Your task to perform on an android device: Open Amazon Image 0: 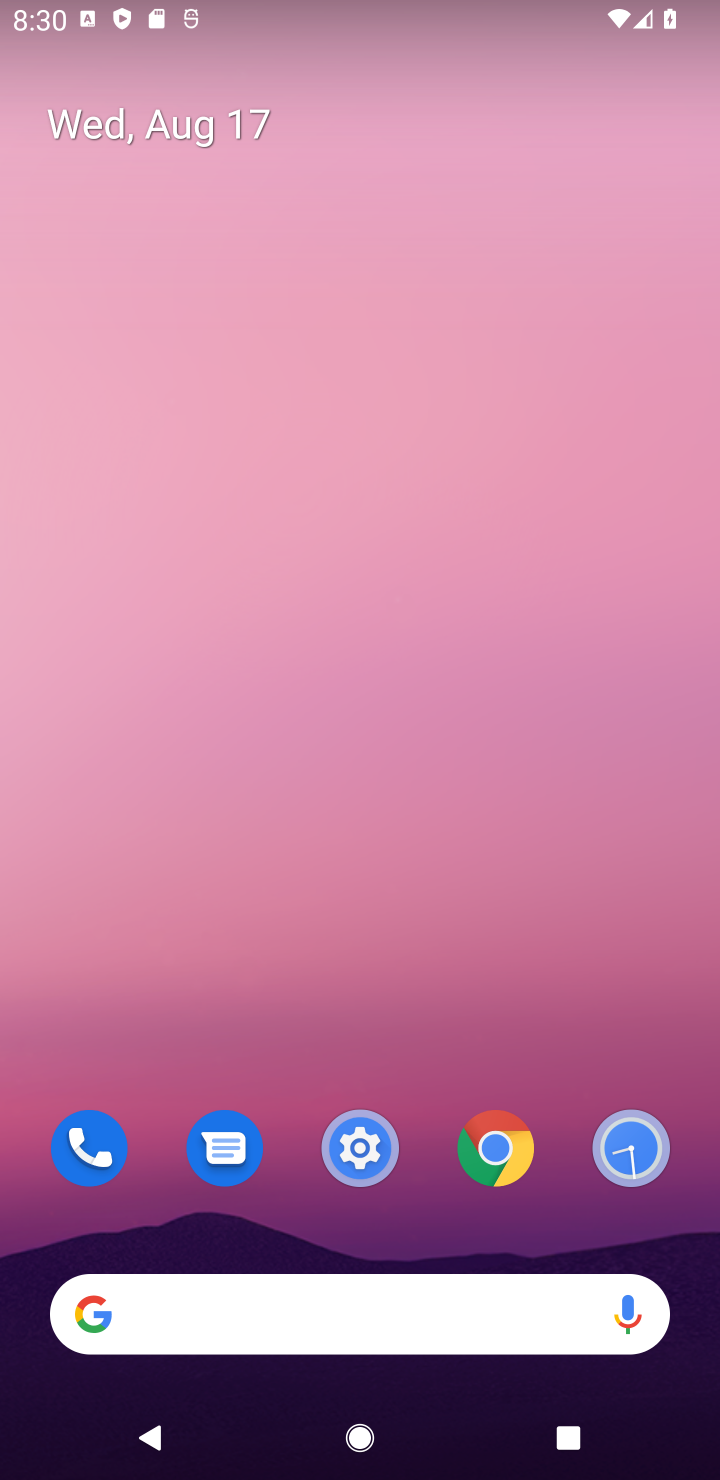
Step 0: click (495, 1149)
Your task to perform on an android device: Open Amazon Image 1: 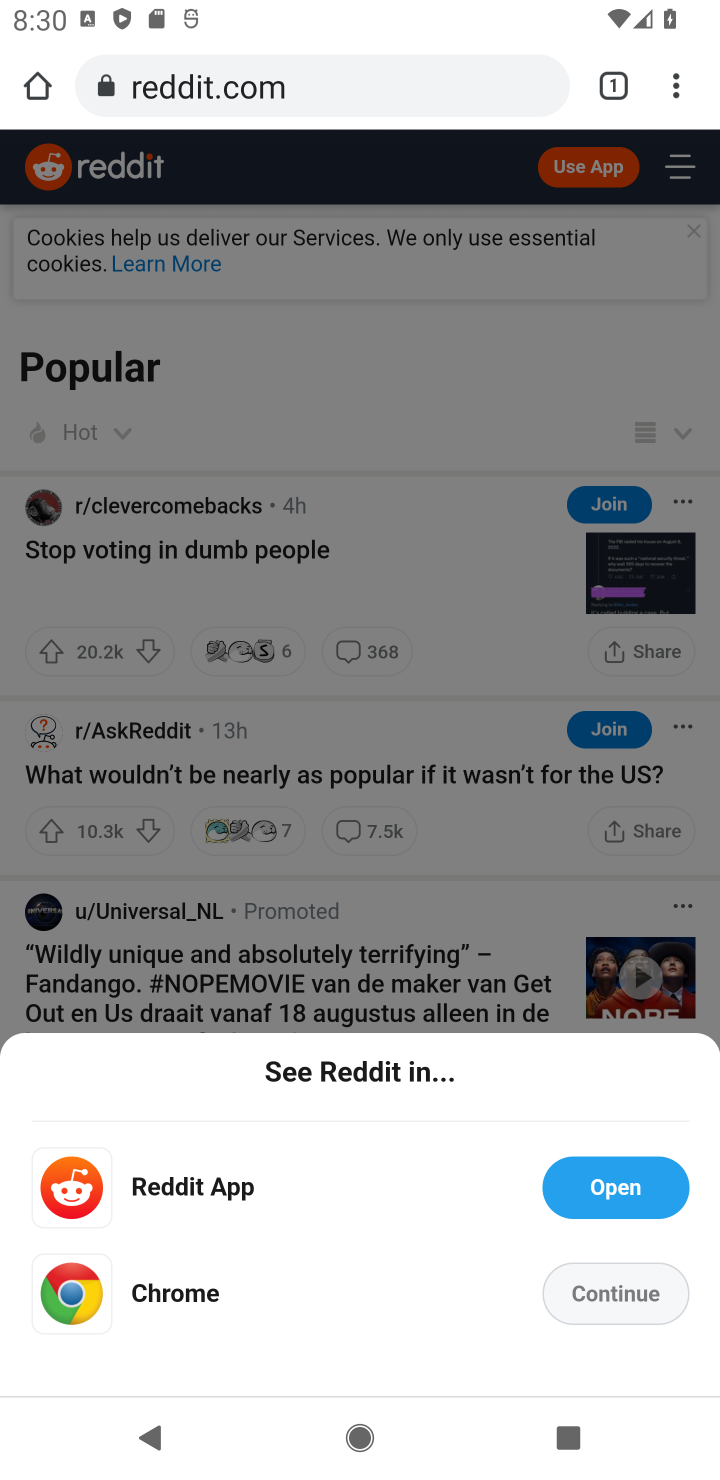
Step 1: click (375, 81)
Your task to perform on an android device: Open Amazon Image 2: 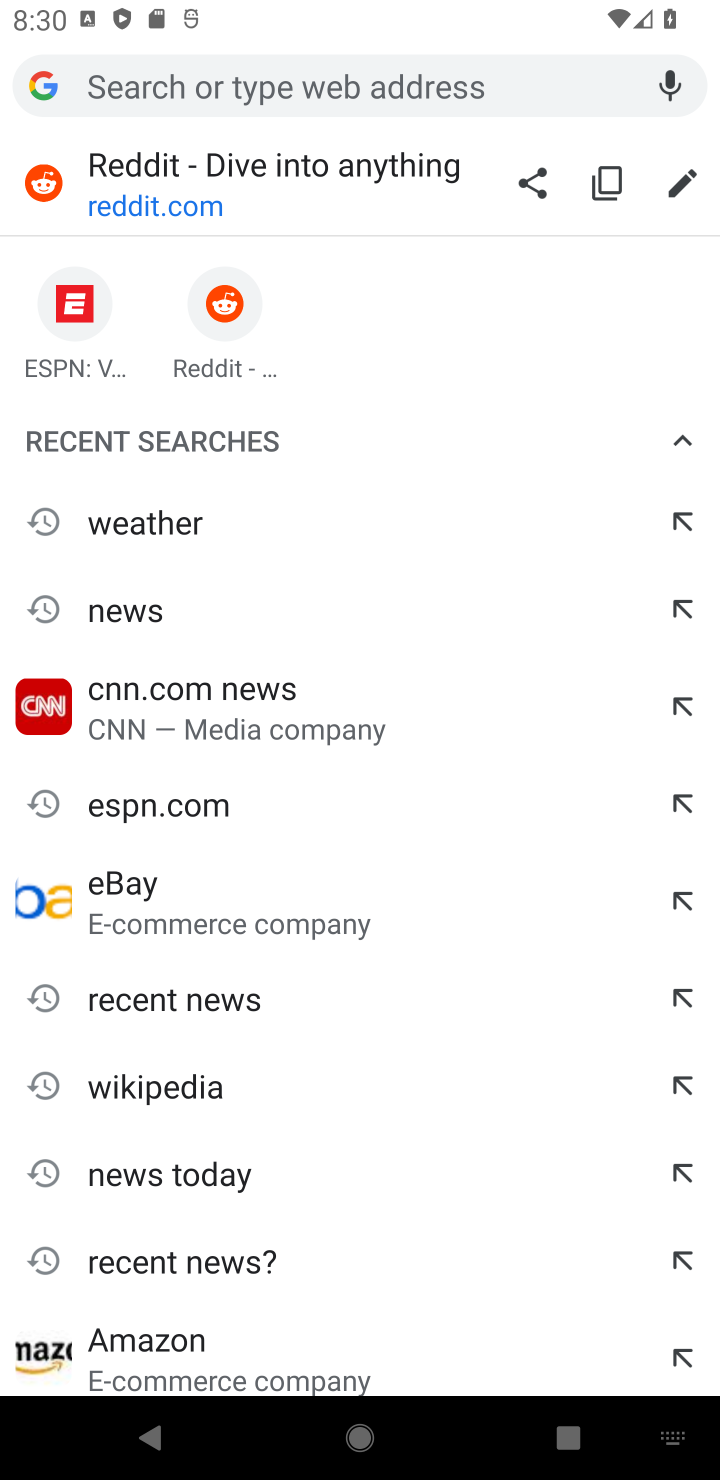
Step 2: type "amazon"
Your task to perform on an android device: Open Amazon Image 3: 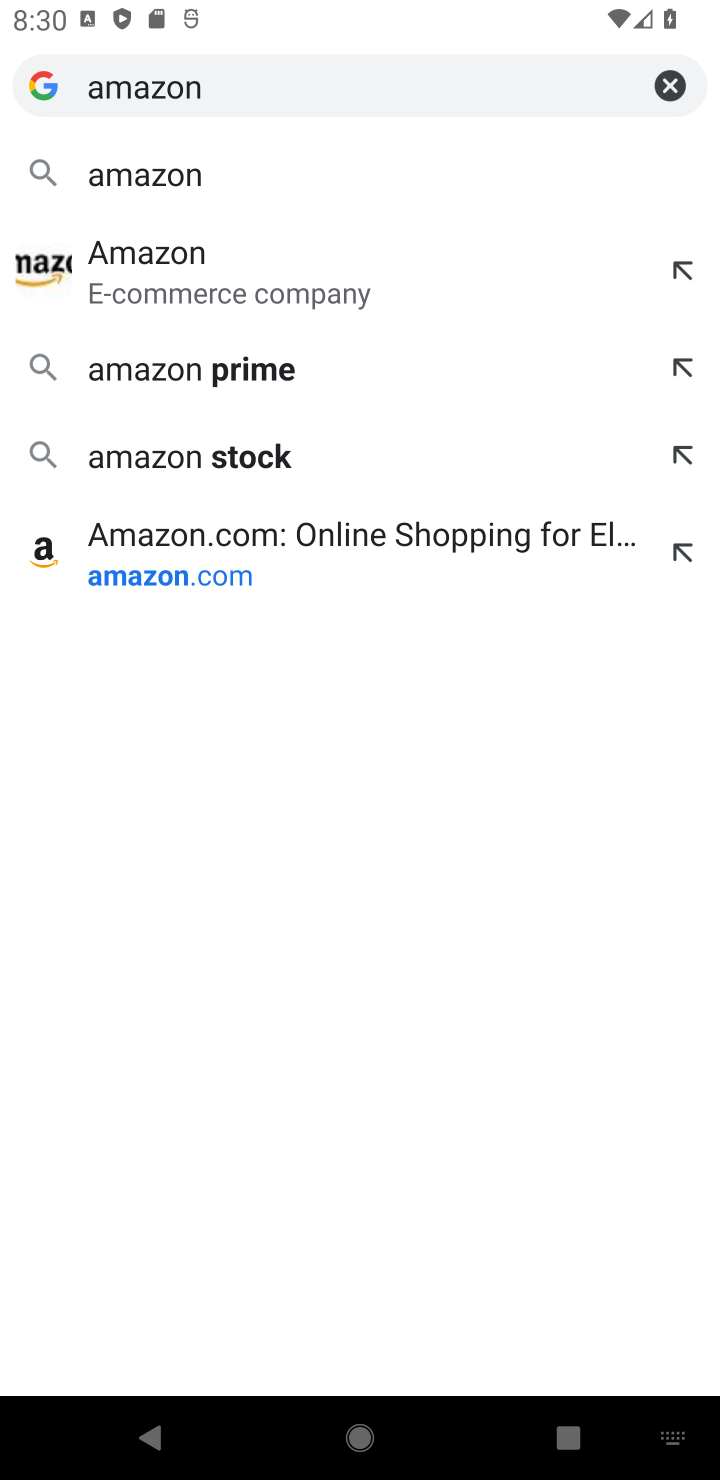
Step 3: click (97, 169)
Your task to perform on an android device: Open Amazon Image 4: 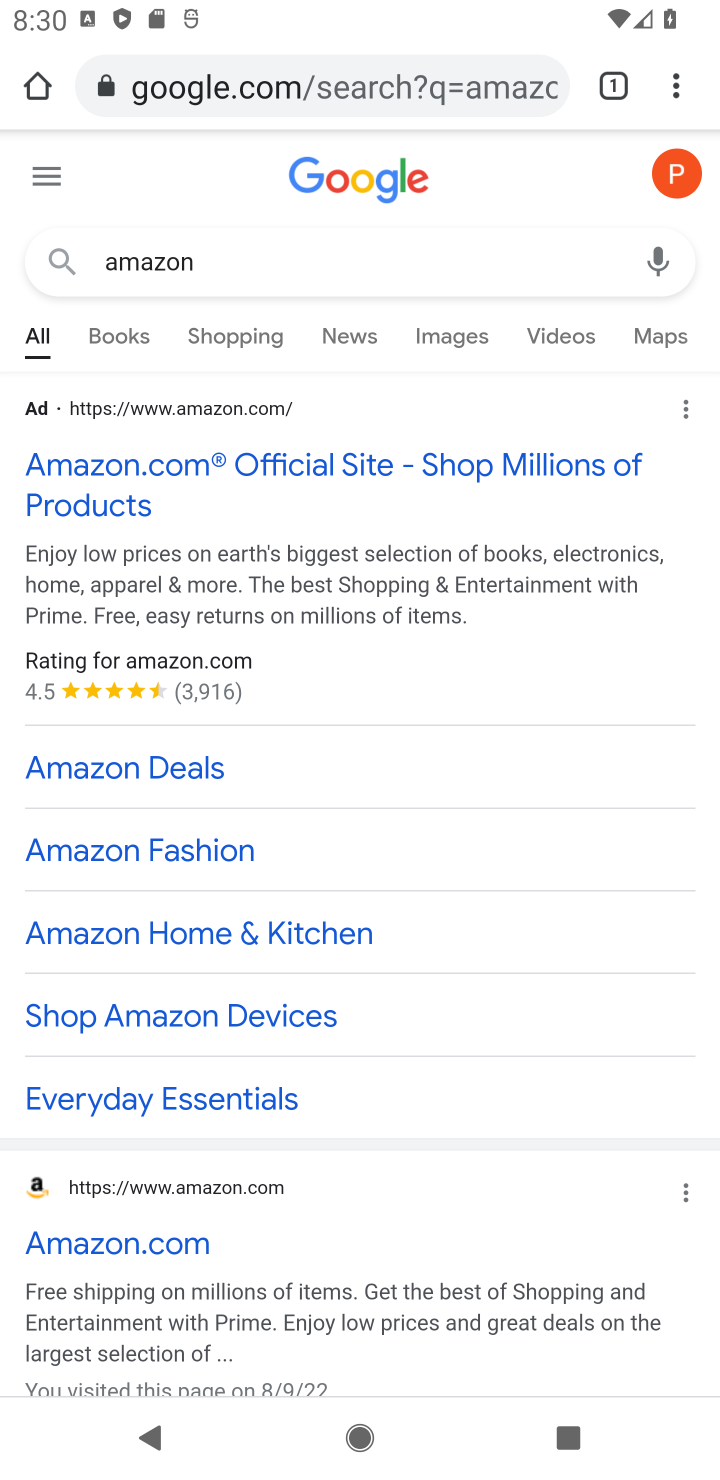
Step 4: click (101, 452)
Your task to perform on an android device: Open Amazon Image 5: 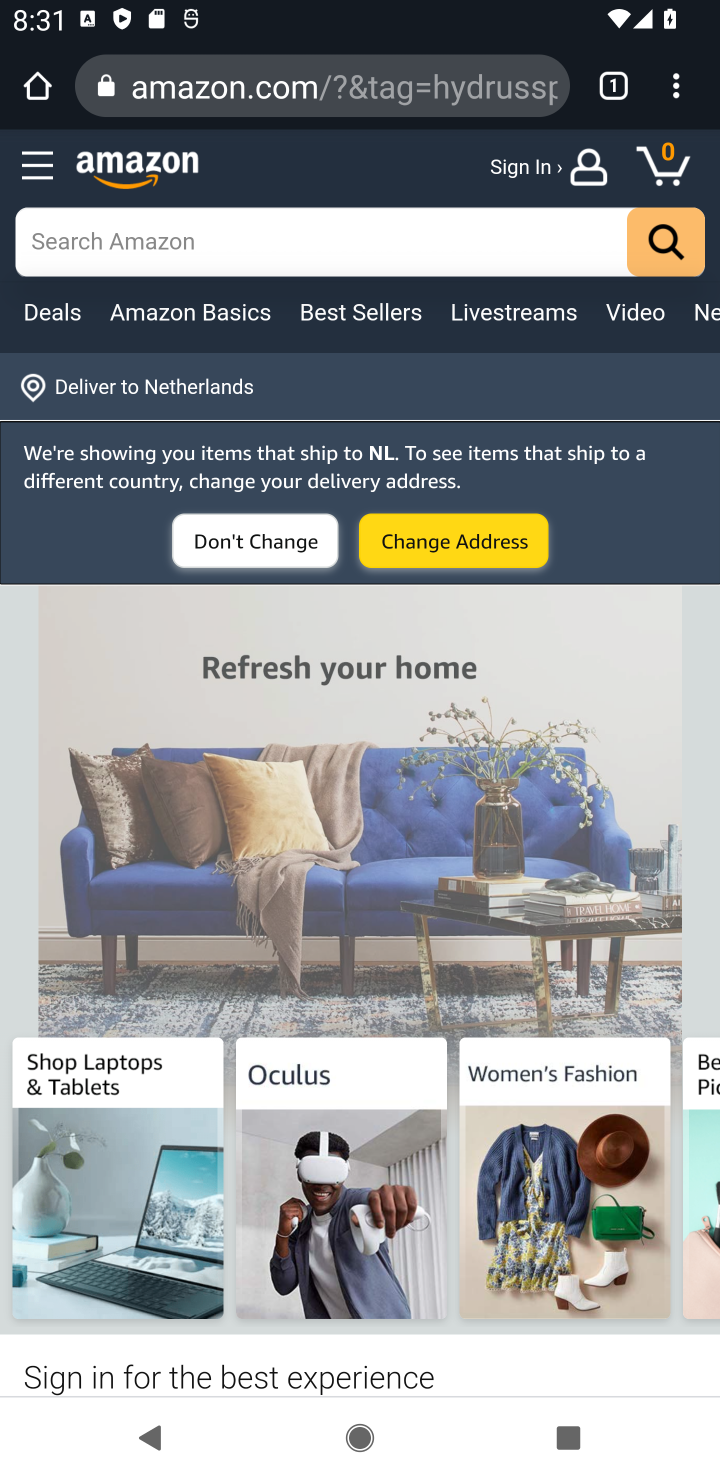
Step 5: task complete